Your task to perform on an android device: turn off location Image 0: 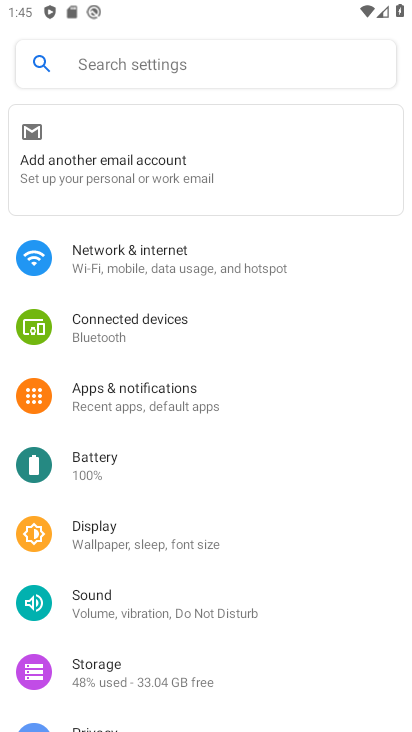
Step 0: drag from (177, 610) to (182, 252)
Your task to perform on an android device: turn off location Image 1: 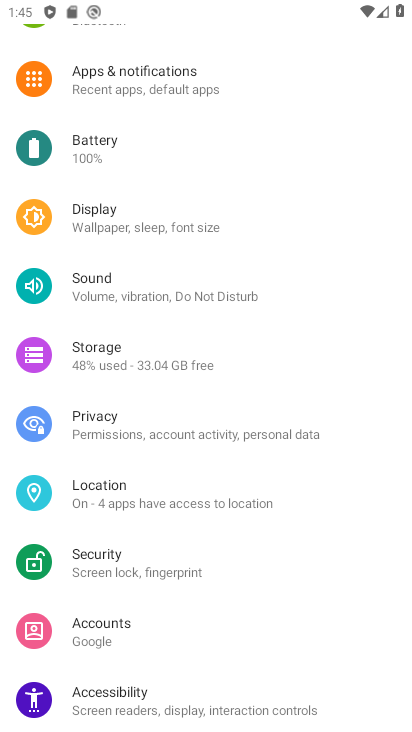
Step 1: click (124, 504)
Your task to perform on an android device: turn off location Image 2: 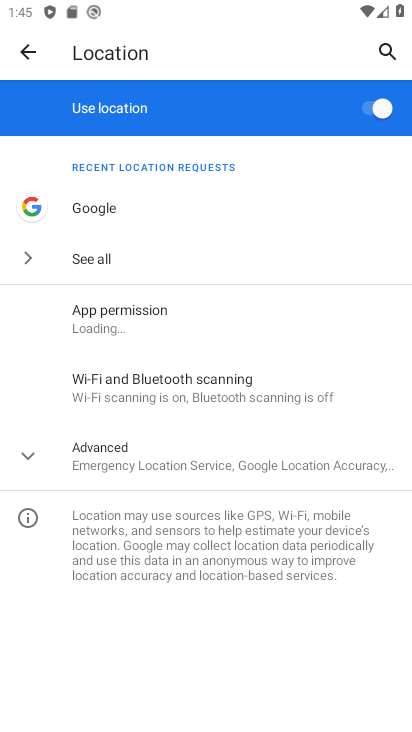
Step 2: click (372, 112)
Your task to perform on an android device: turn off location Image 3: 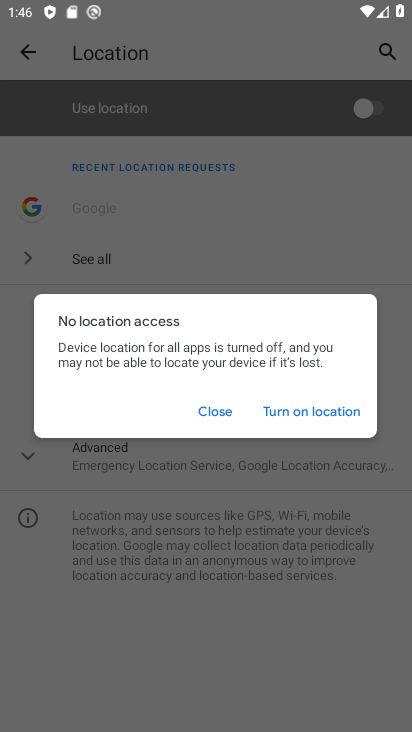
Step 3: click (218, 412)
Your task to perform on an android device: turn off location Image 4: 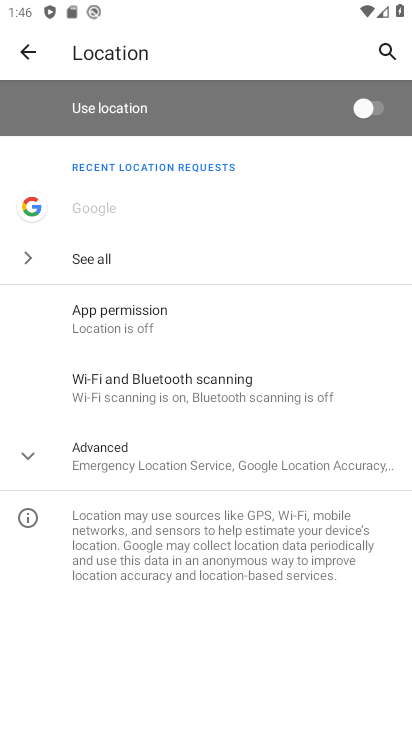
Step 4: task complete